Your task to perform on an android device: open app "The Home Depot" (install if not already installed) and go to login screen Image 0: 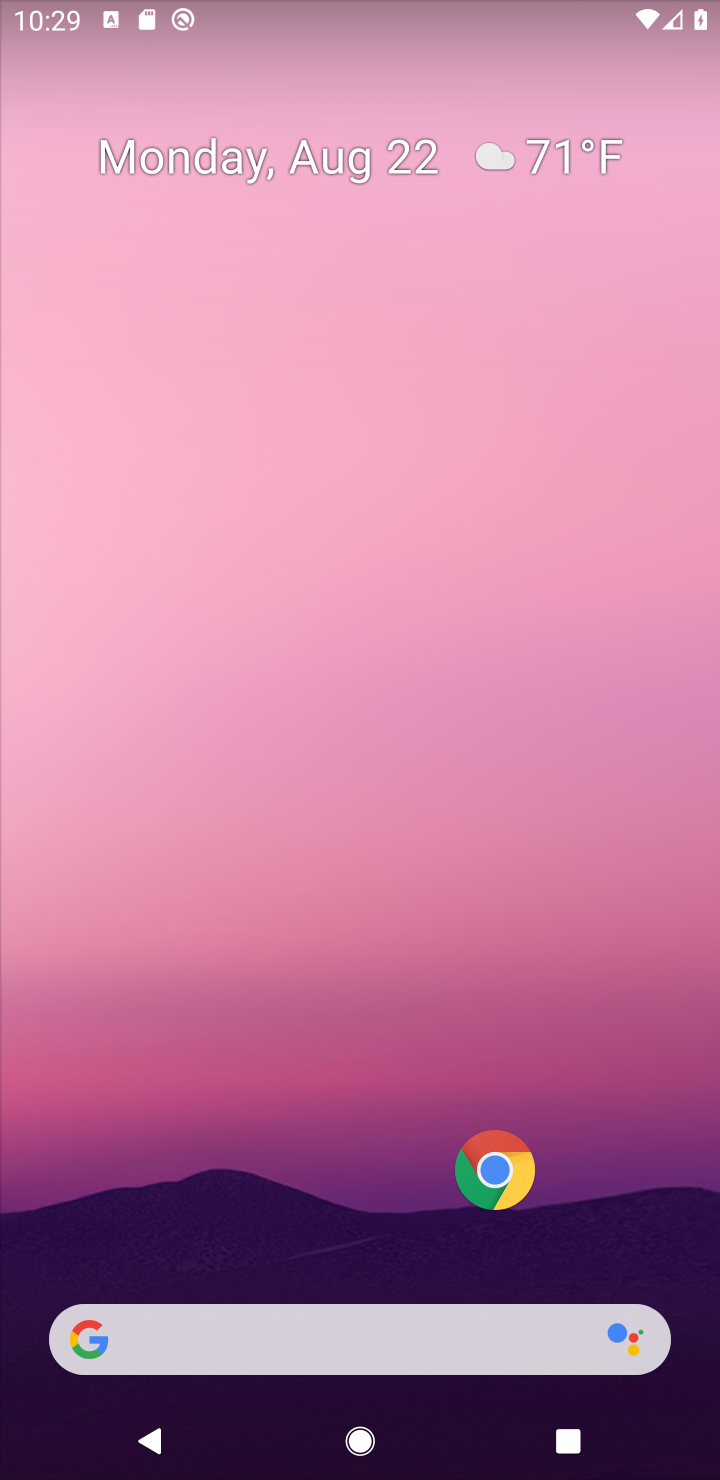
Step 0: drag from (363, 992) to (446, 19)
Your task to perform on an android device: open app "The Home Depot" (install if not already installed) and go to login screen Image 1: 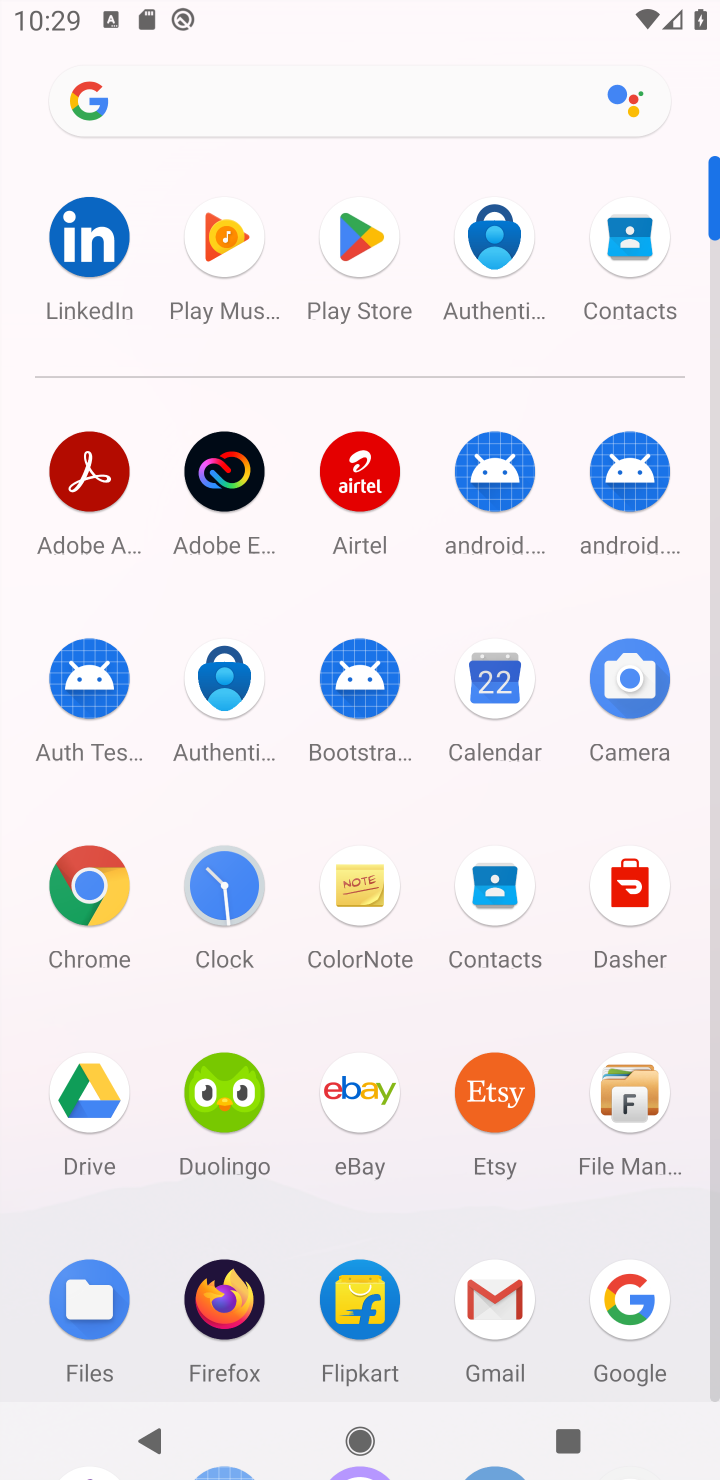
Step 1: click (361, 218)
Your task to perform on an android device: open app "The Home Depot" (install if not already installed) and go to login screen Image 2: 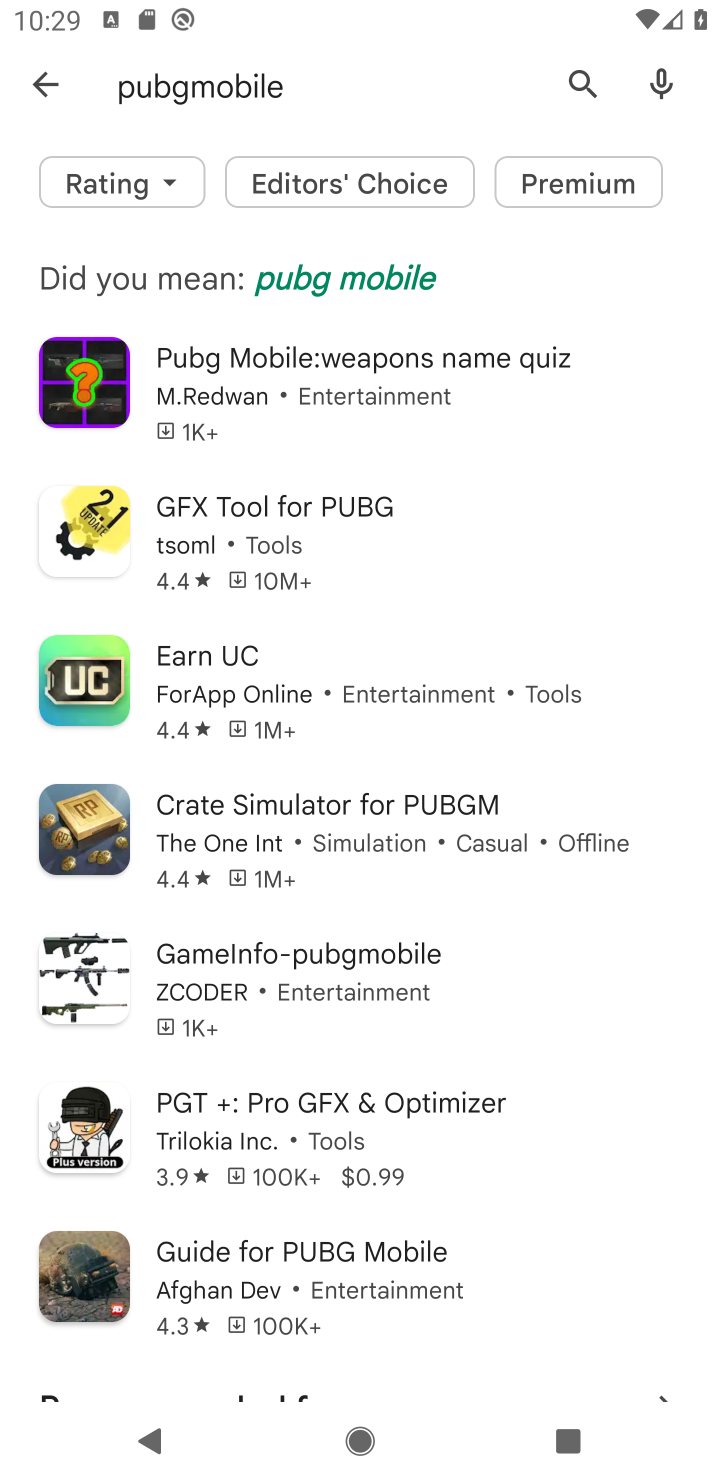
Step 2: click (574, 74)
Your task to perform on an android device: open app "The Home Depot" (install if not already installed) and go to login screen Image 3: 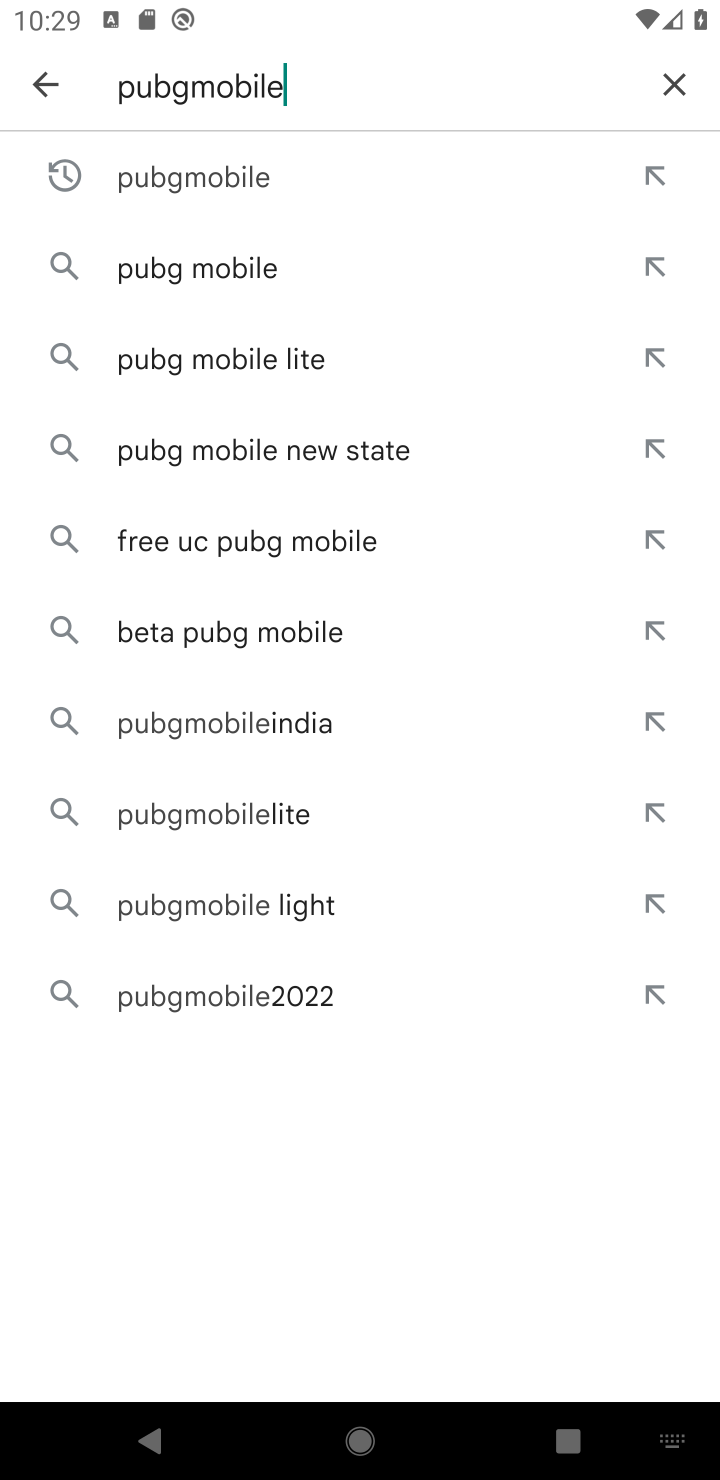
Step 3: click (685, 83)
Your task to perform on an android device: open app "The Home Depot" (install if not already installed) and go to login screen Image 4: 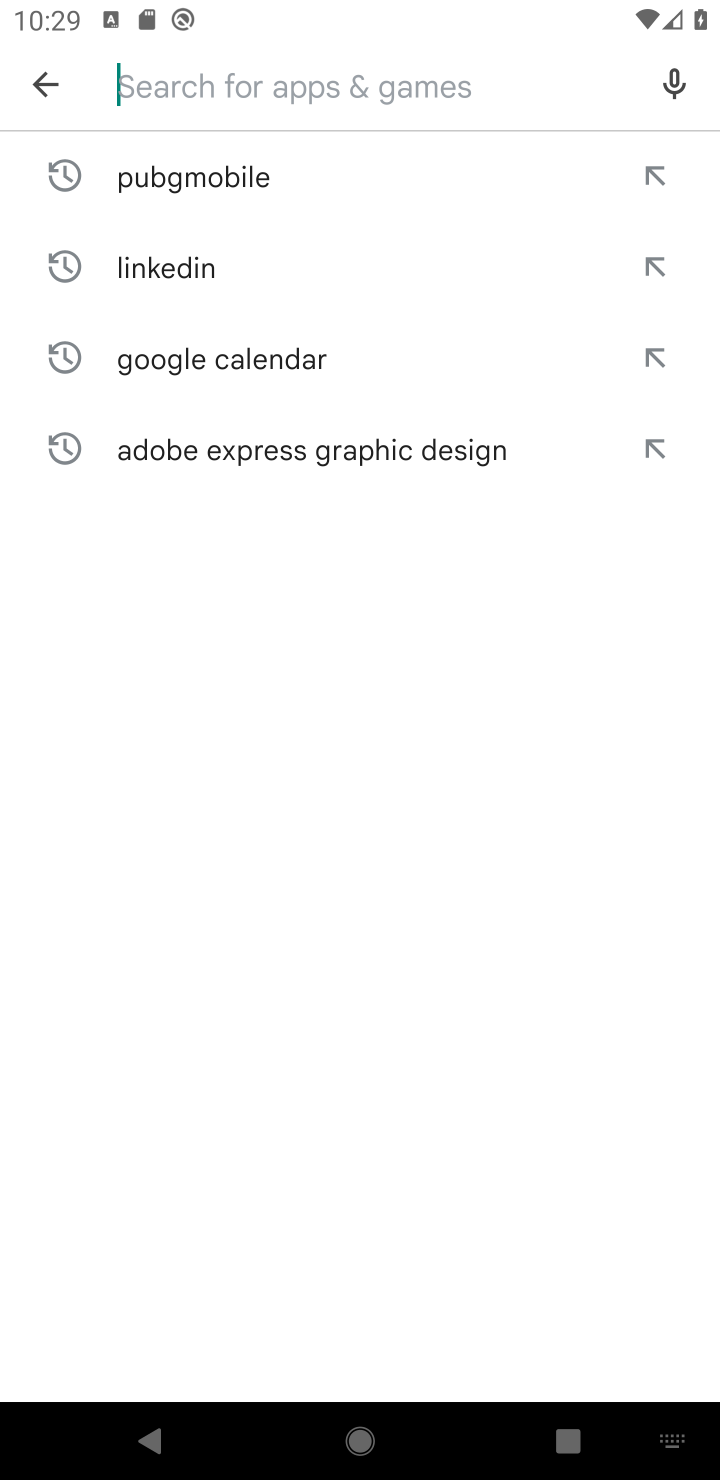
Step 4: click (193, 68)
Your task to perform on an android device: open app "The Home Depot" (install if not already installed) and go to login screen Image 5: 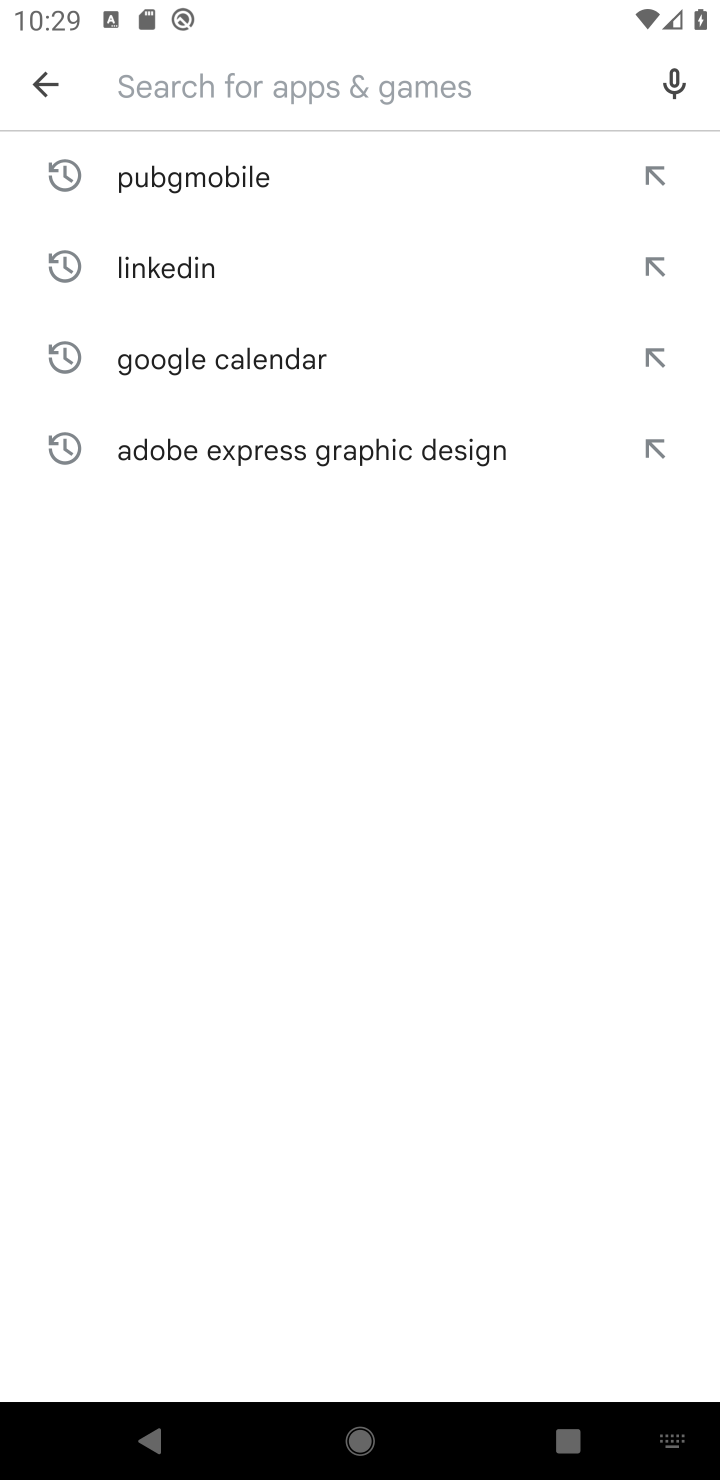
Step 5: type "The Home Depot"
Your task to perform on an android device: open app "The Home Depot" (install if not already installed) and go to login screen Image 6: 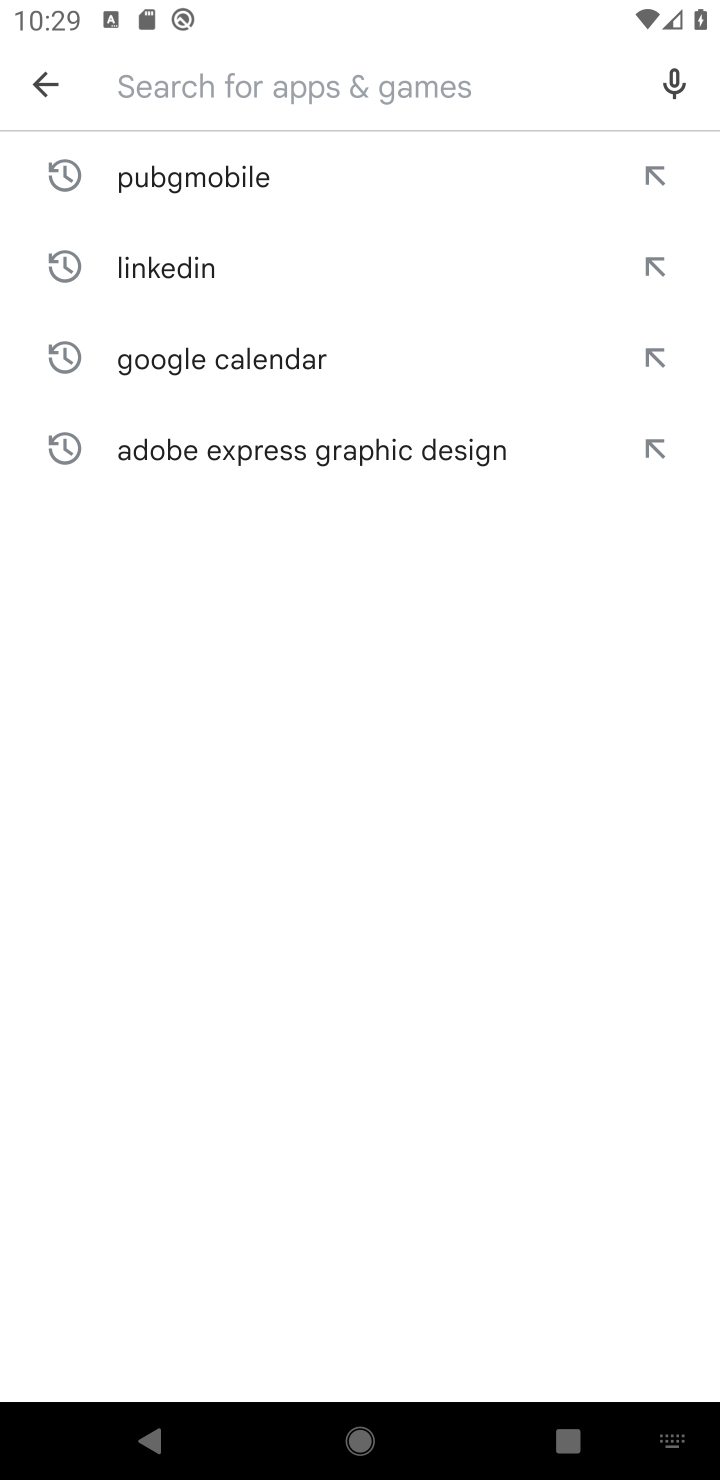
Step 6: click (342, 964)
Your task to perform on an android device: open app "The Home Depot" (install if not already installed) and go to login screen Image 7: 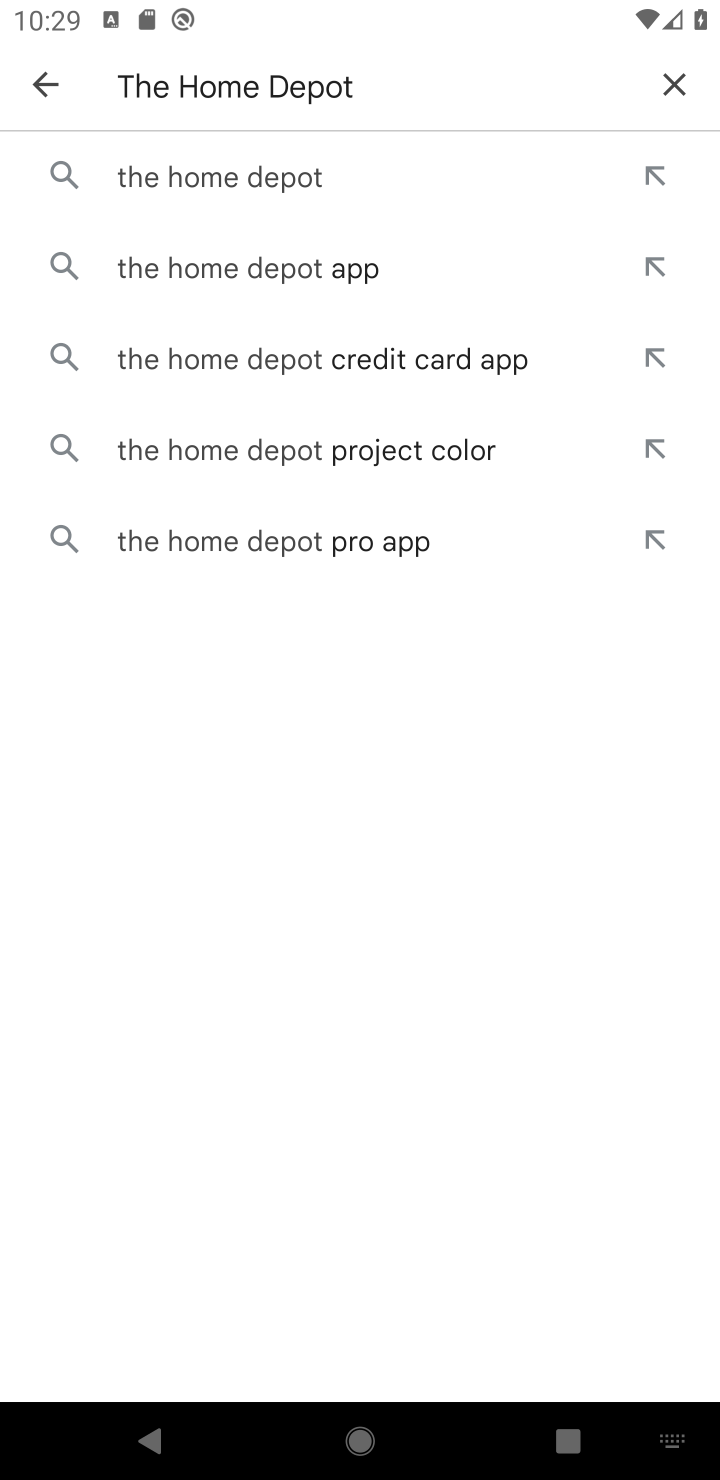
Step 7: click (203, 170)
Your task to perform on an android device: open app "The Home Depot" (install if not already installed) and go to login screen Image 8: 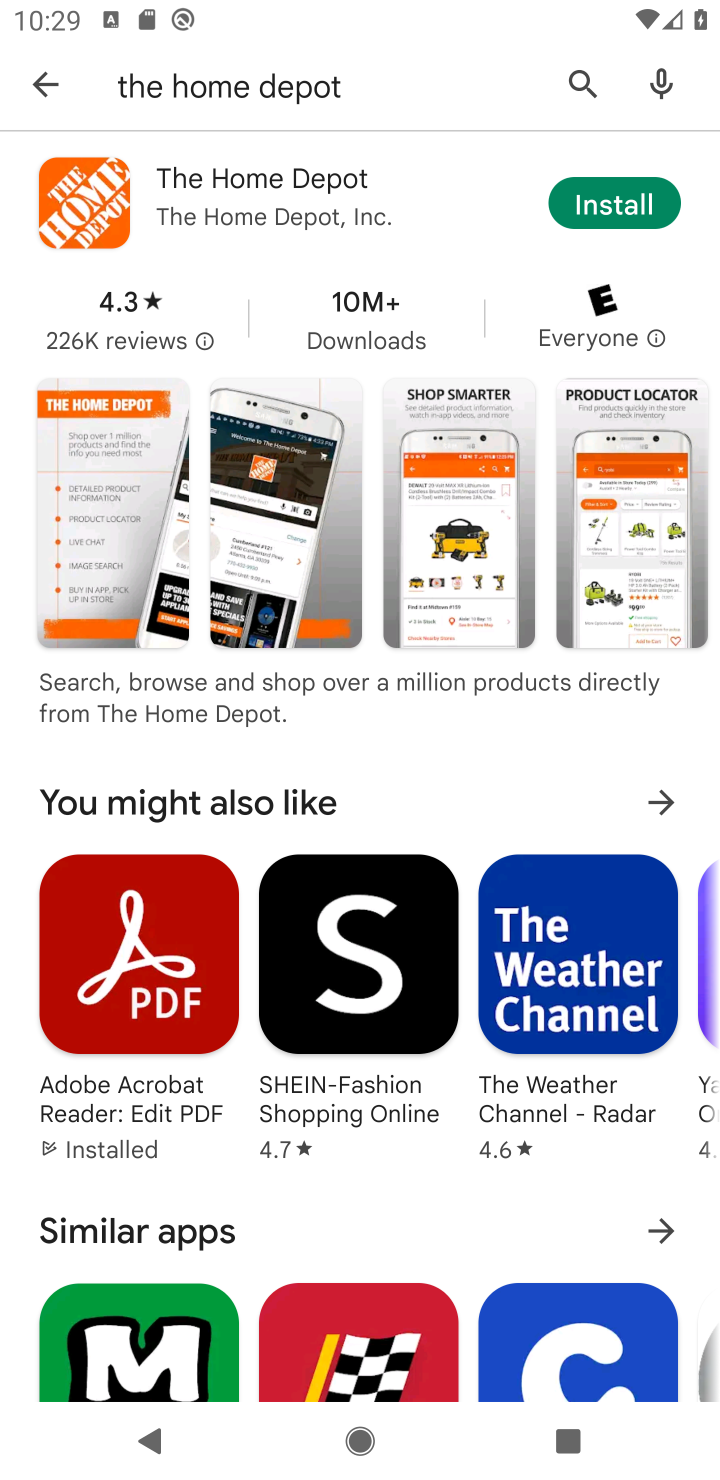
Step 8: click (565, 199)
Your task to perform on an android device: open app "The Home Depot" (install if not already installed) and go to login screen Image 9: 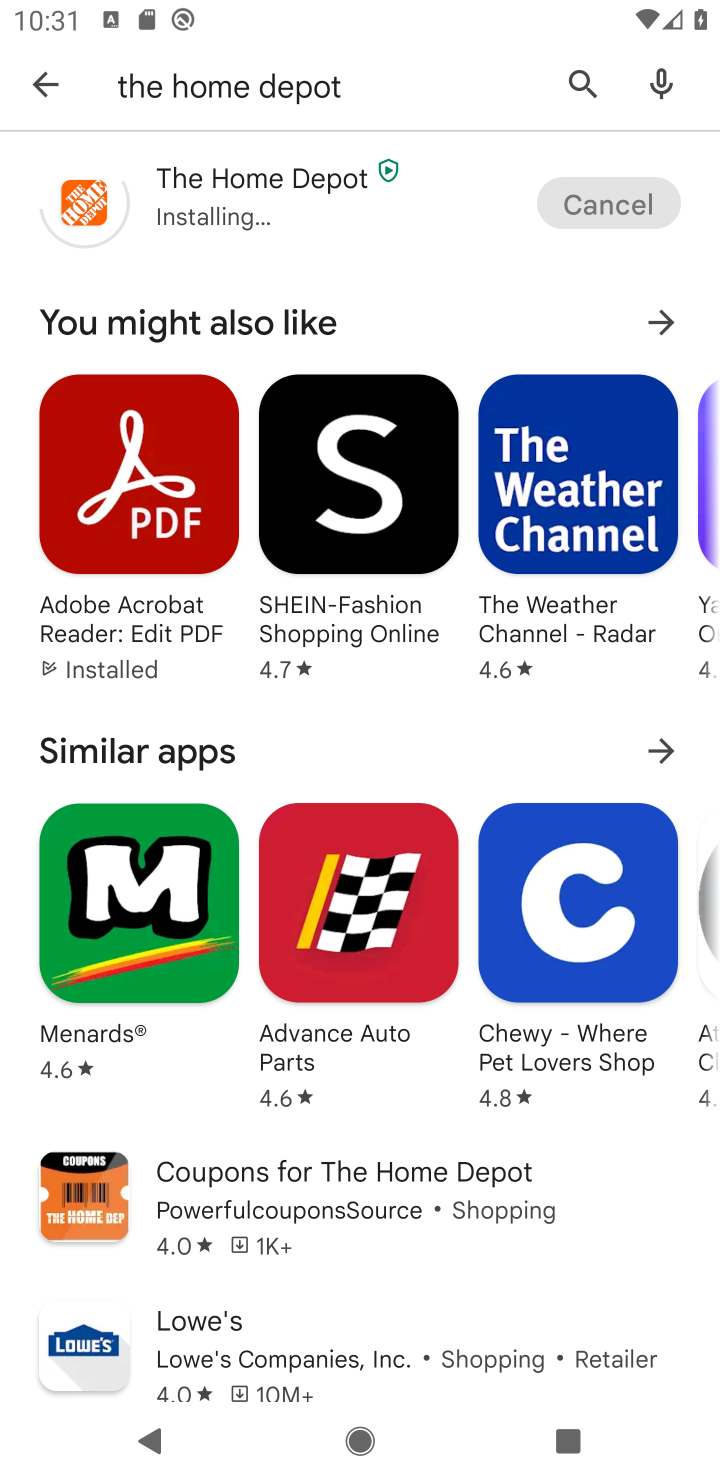
Step 9: press back button
Your task to perform on an android device: open app "The Home Depot" (install if not already installed) and go to login screen Image 10: 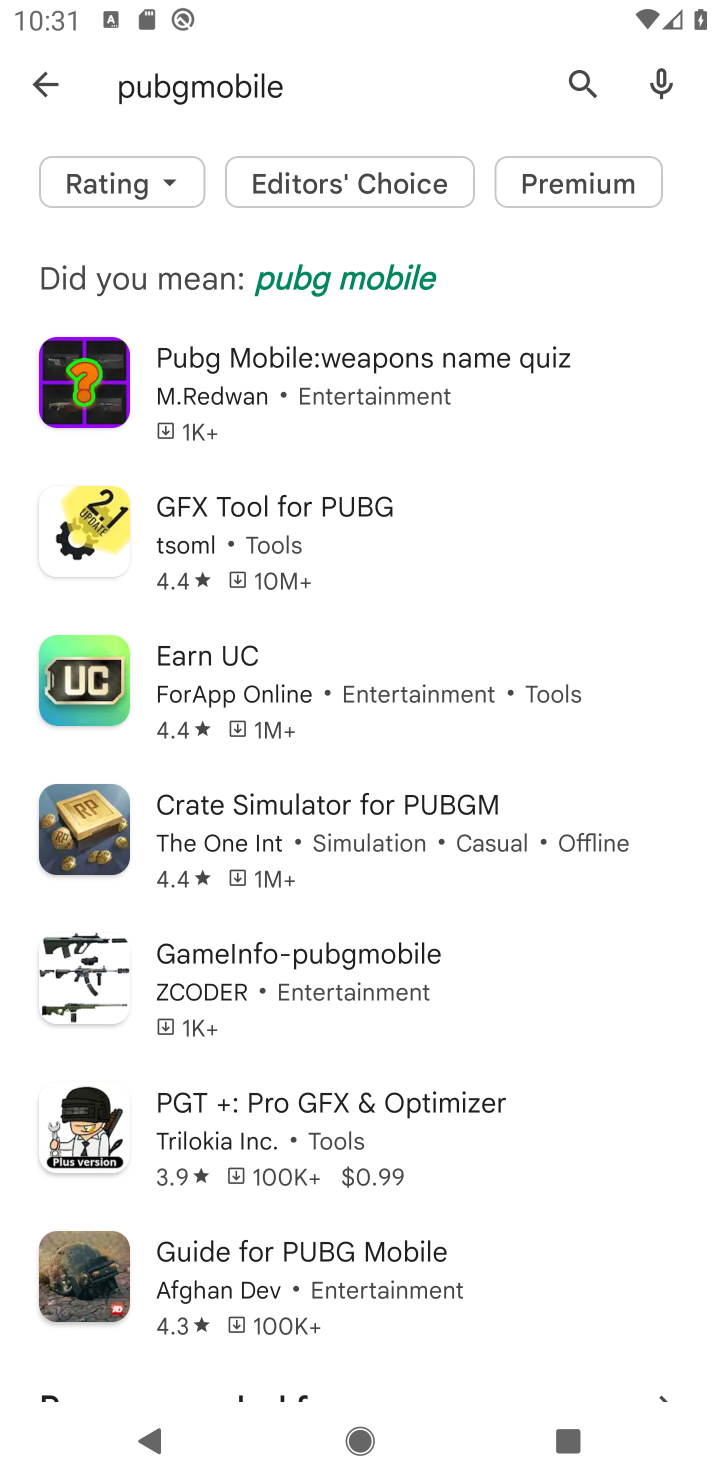
Step 10: click (581, 80)
Your task to perform on an android device: open app "The Home Depot" (install if not already installed) and go to login screen Image 11: 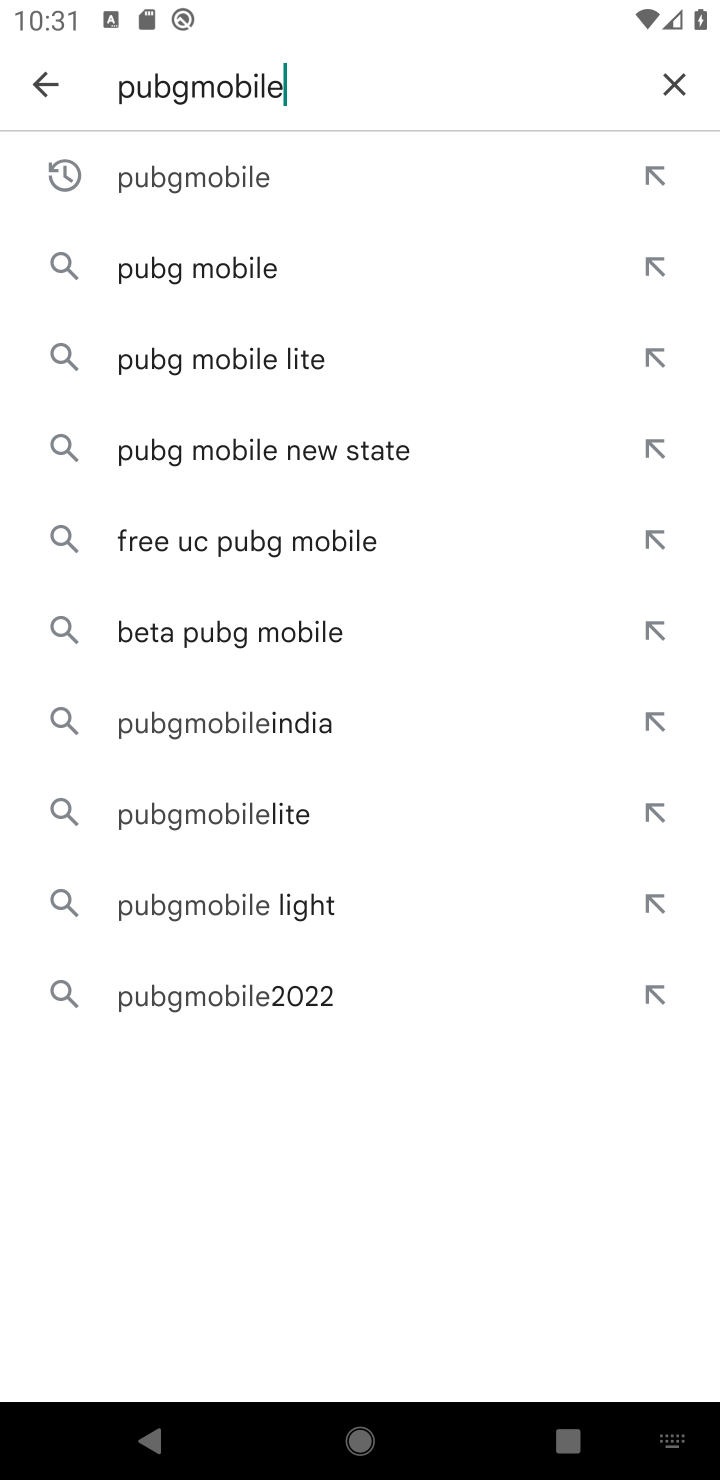
Step 11: click (680, 87)
Your task to perform on an android device: open app "The Home Depot" (install if not already installed) and go to login screen Image 12: 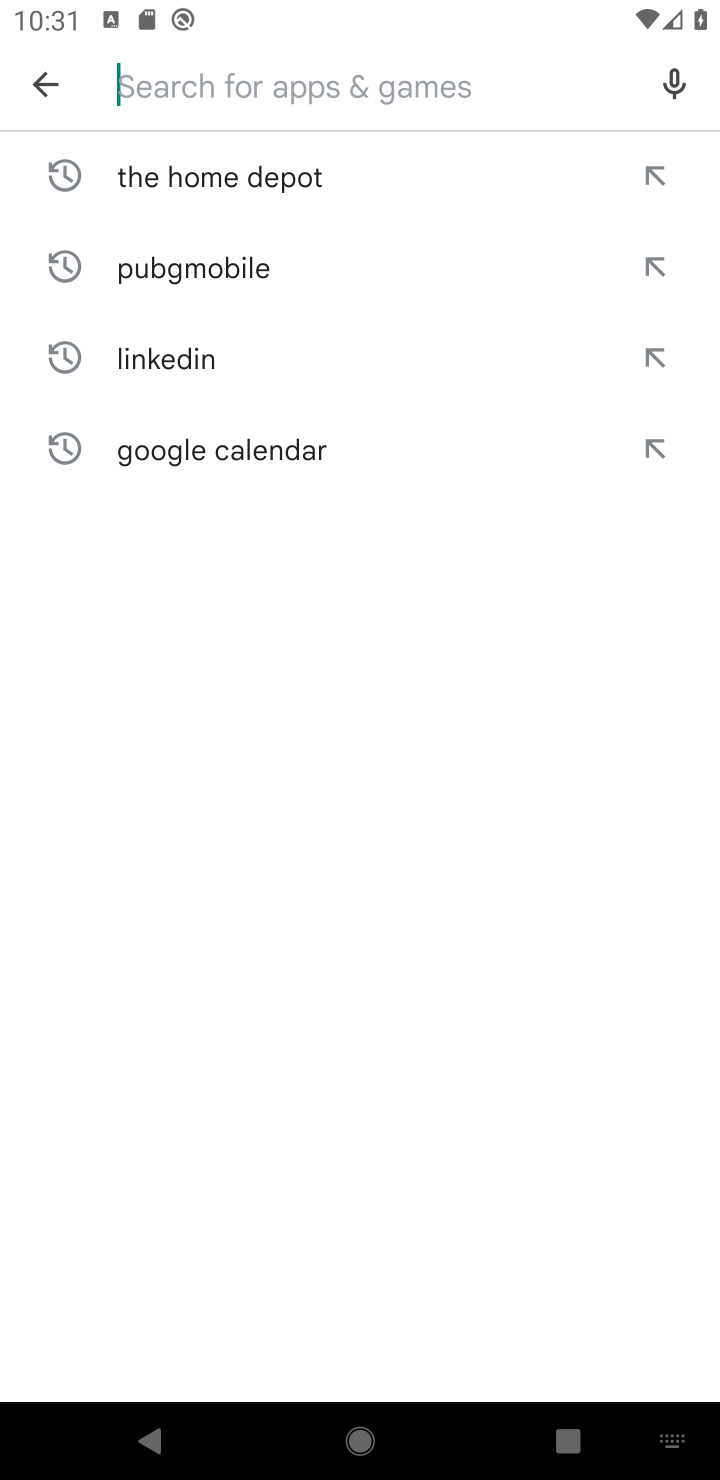
Step 12: click (199, 179)
Your task to perform on an android device: open app "The Home Depot" (install if not already installed) and go to login screen Image 13: 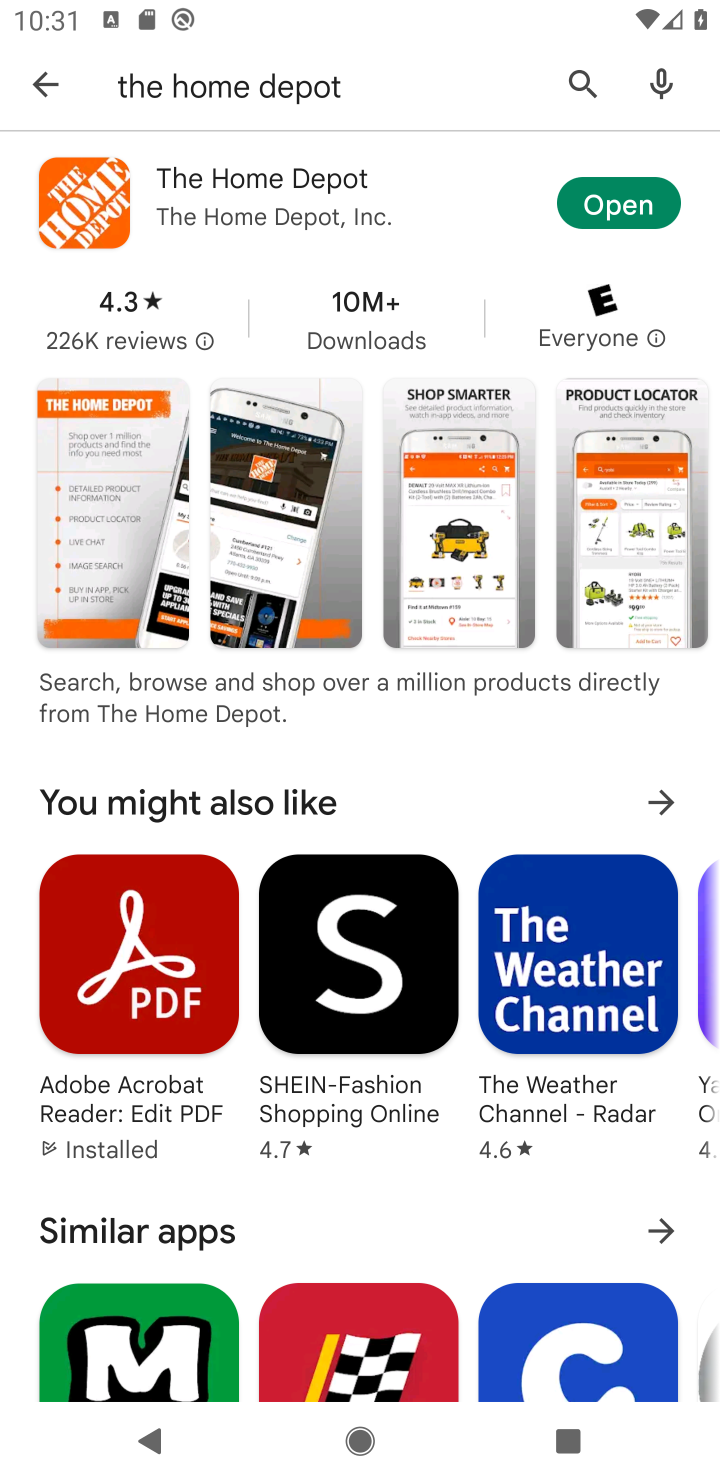
Step 13: click (606, 200)
Your task to perform on an android device: open app "The Home Depot" (install if not already installed) and go to login screen Image 14: 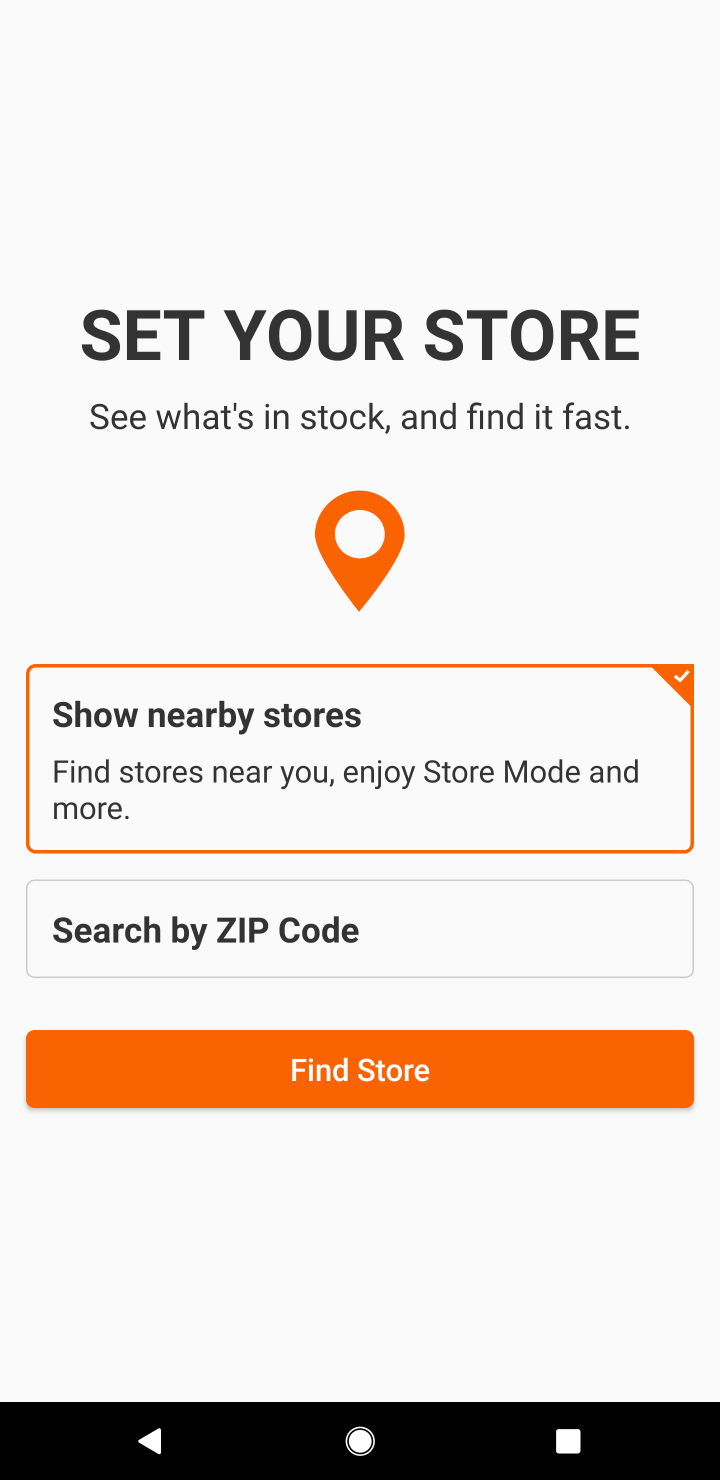
Step 14: task complete